Your task to perform on an android device: find snoozed emails in the gmail app Image 0: 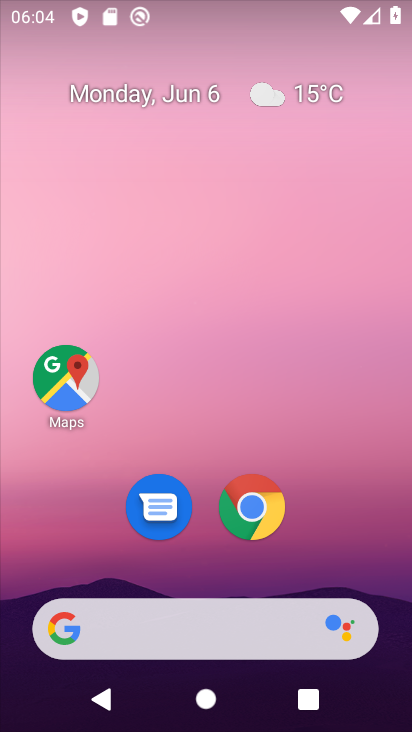
Step 0: click (194, 135)
Your task to perform on an android device: find snoozed emails in the gmail app Image 1: 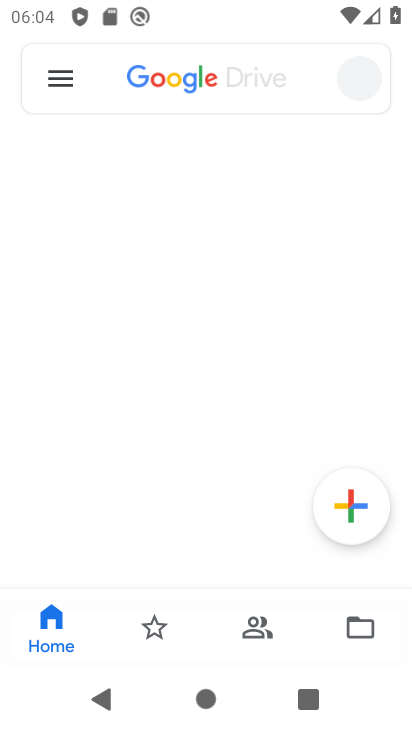
Step 1: press home button
Your task to perform on an android device: find snoozed emails in the gmail app Image 2: 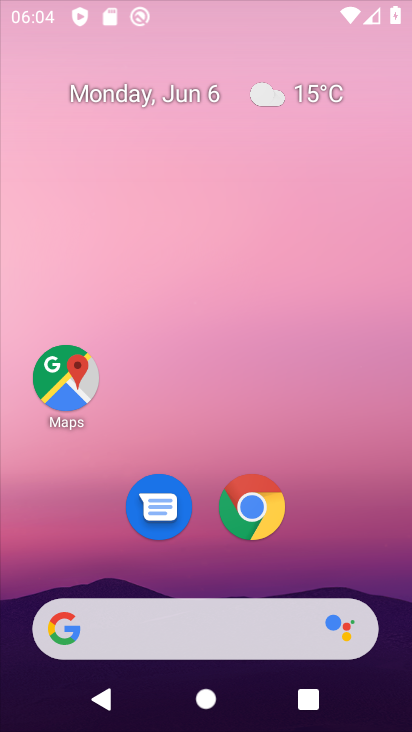
Step 2: drag from (197, 567) to (209, 494)
Your task to perform on an android device: find snoozed emails in the gmail app Image 3: 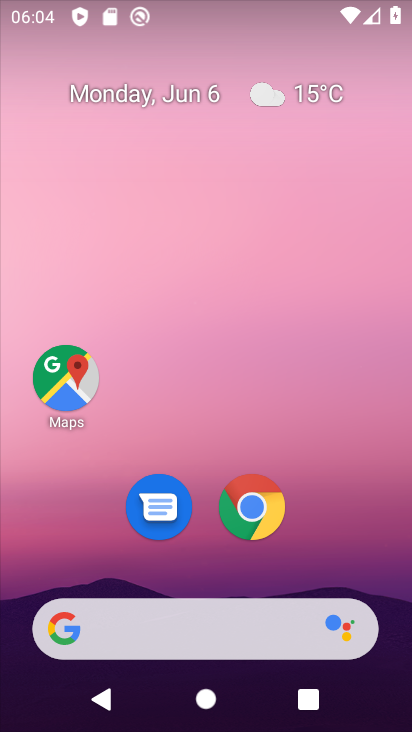
Step 3: drag from (213, 557) to (213, 352)
Your task to perform on an android device: find snoozed emails in the gmail app Image 4: 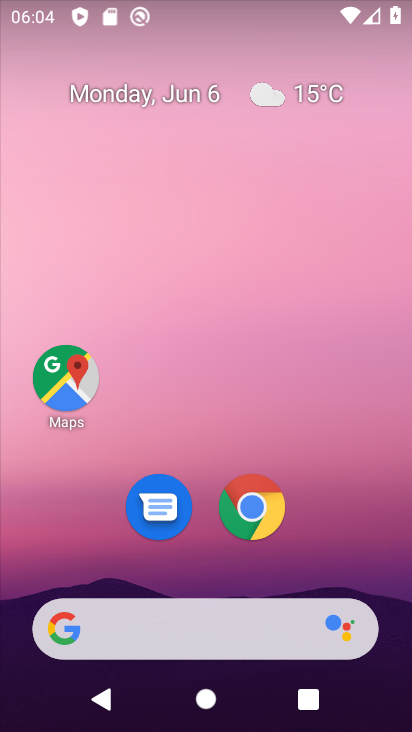
Step 4: drag from (193, 531) to (249, 126)
Your task to perform on an android device: find snoozed emails in the gmail app Image 5: 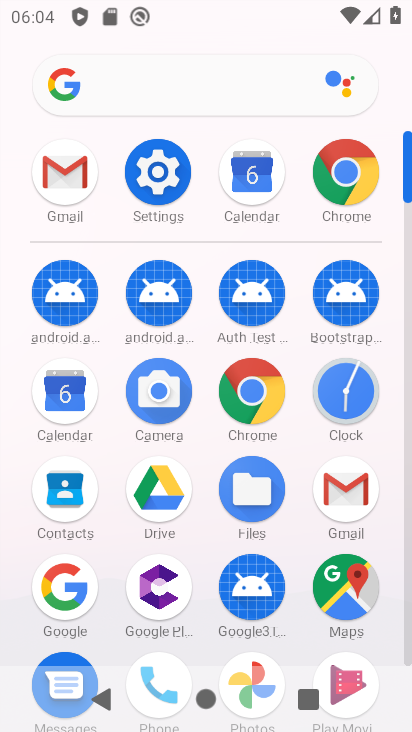
Step 5: click (66, 183)
Your task to perform on an android device: find snoozed emails in the gmail app Image 6: 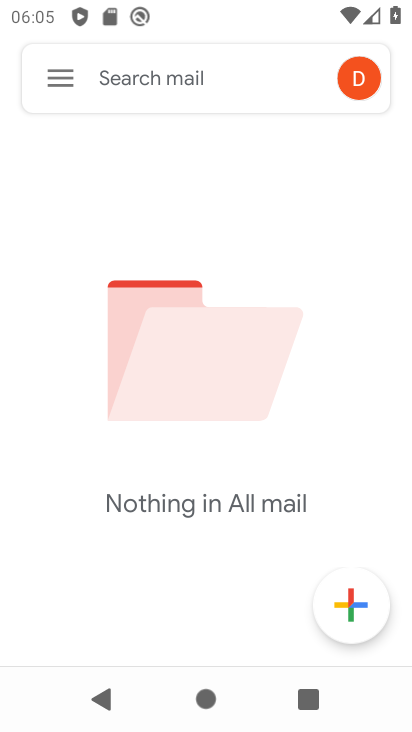
Step 6: click (61, 79)
Your task to perform on an android device: find snoozed emails in the gmail app Image 7: 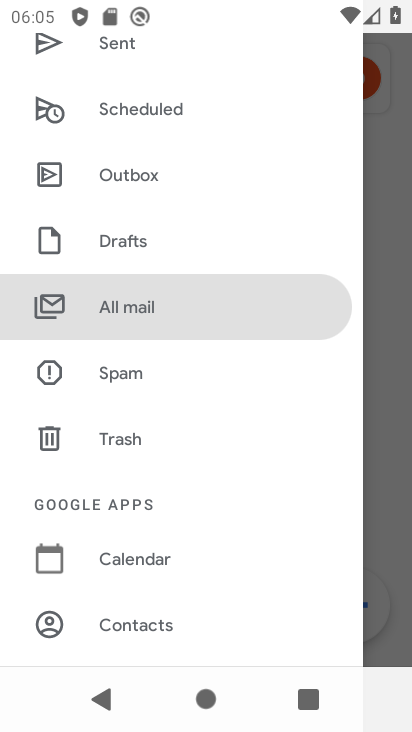
Step 7: drag from (128, 119) to (115, 288)
Your task to perform on an android device: find snoozed emails in the gmail app Image 8: 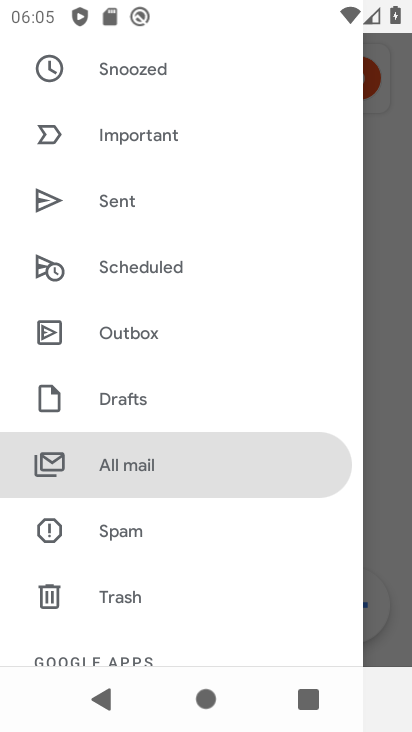
Step 8: drag from (138, 171) to (107, 730)
Your task to perform on an android device: find snoozed emails in the gmail app Image 9: 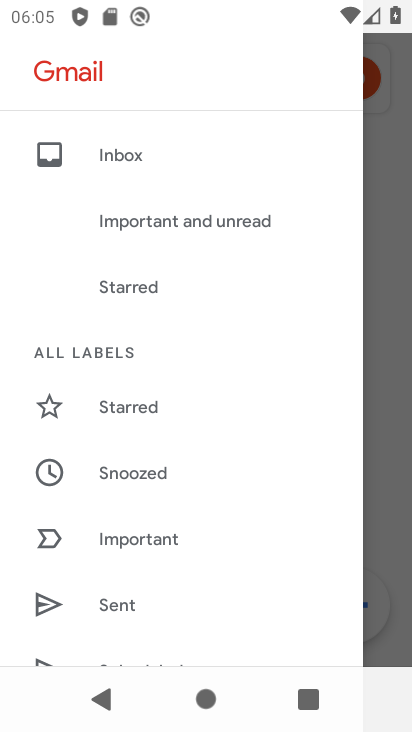
Step 9: click (128, 458)
Your task to perform on an android device: find snoozed emails in the gmail app Image 10: 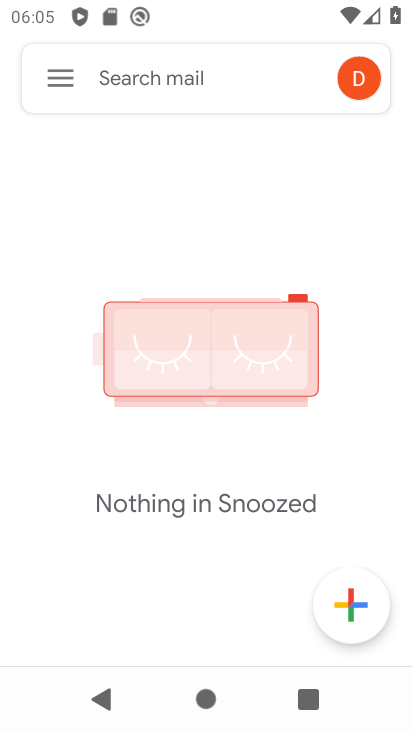
Step 10: task complete